Your task to perform on an android device: Do I have any events today? Image 0: 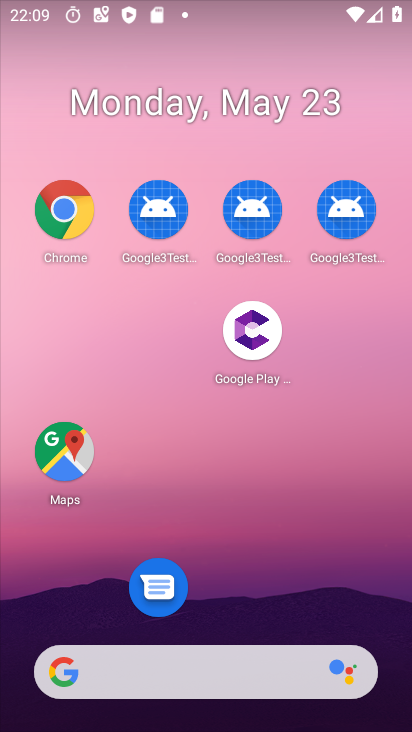
Step 0: click (263, 98)
Your task to perform on an android device: Do I have any events today? Image 1: 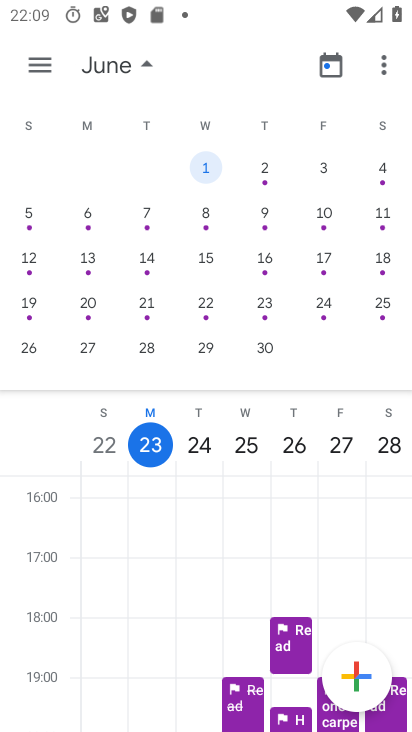
Step 1: click (46, 75)
Your task to perform on an android device: Do I have any events today? Image 2: 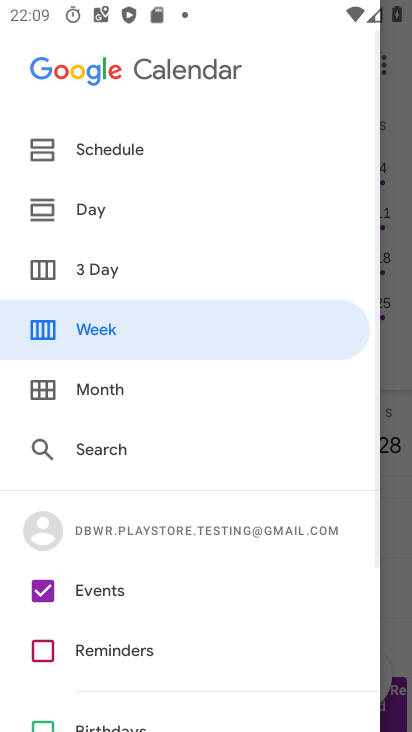
Step 2: click (95, 153)
Your task to perform on an android device: Do I have any events today? Image 3: 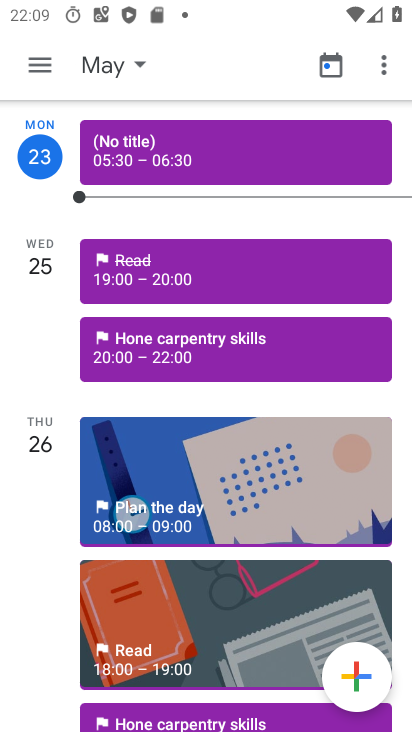
Step 3: task complete